Your task to perform on an android device: turn off location history Image 0: 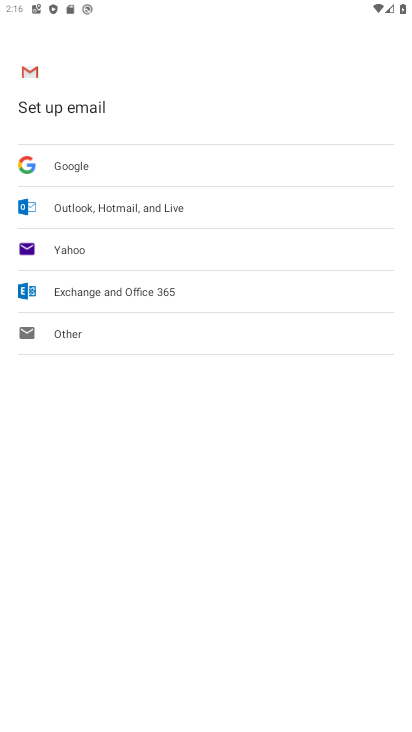
Step 0: press home button
Your task to perform on an android device: turn off location history Image 1: 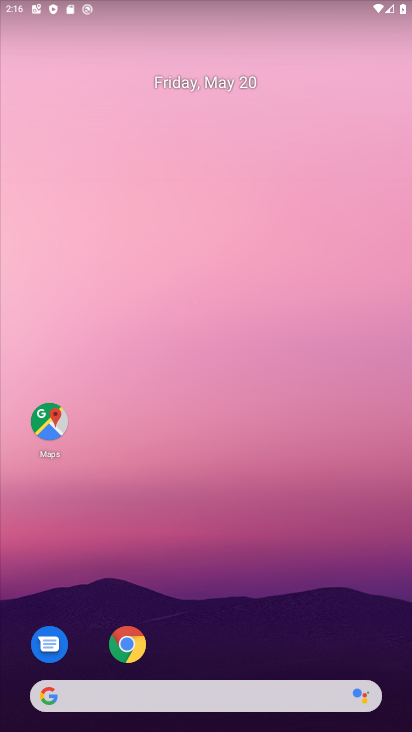
Step 1: drag from (366, 526) to (240, 13)
Your task to perform on an android device: turn off location history Image 2: 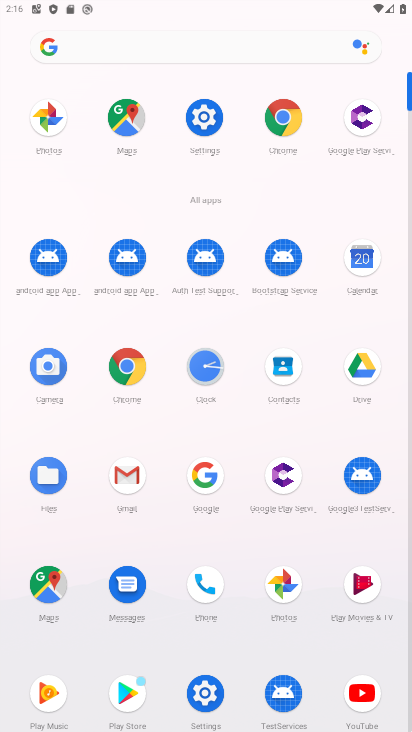
Step 2: click (215, 690)
Your task to perform on an android device: turn off location history Image 3: 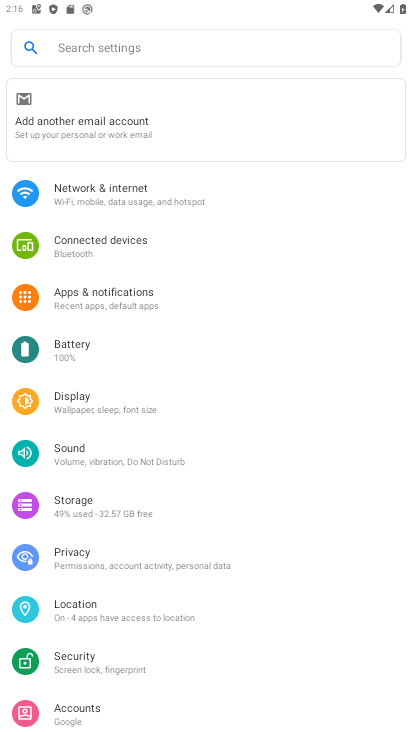
Step 3: click (152, 604)
Your task to perform on an android device: turn off location history Image 4: 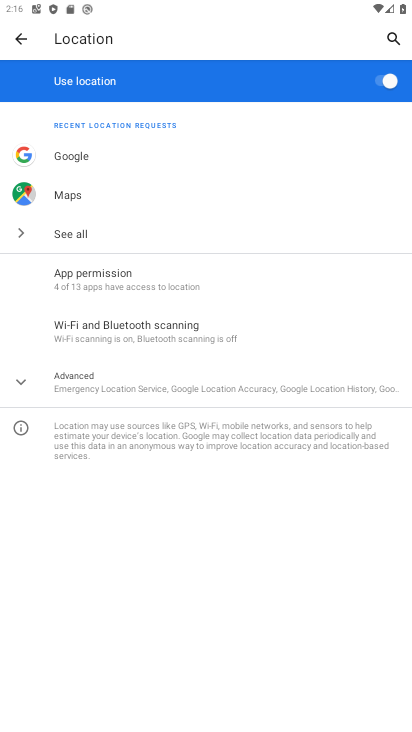
Step 4: click (187, 376)
Your task to perform on an android device: turn off location history Image 5: 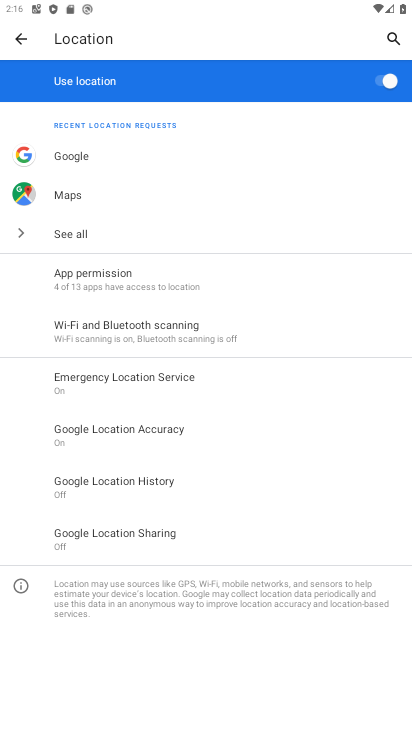
Step 5: click (178, 478)
Your task to perform on an android device: turn off location history Image 6: 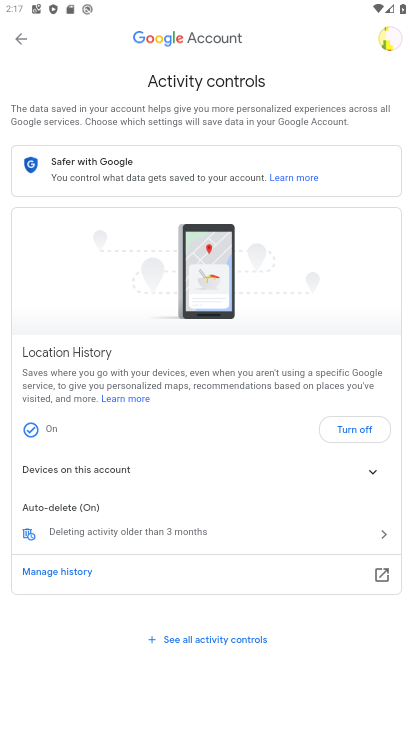
Step 6: click (355, 428)
Your task to perform on an android device: turn off location history Image 7: 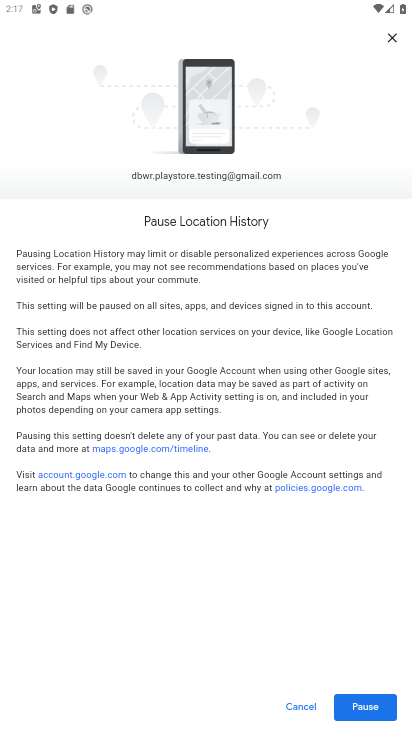
Step 7: click (374, 716)
Your task to perform on an android device: turn off location history Image 8: 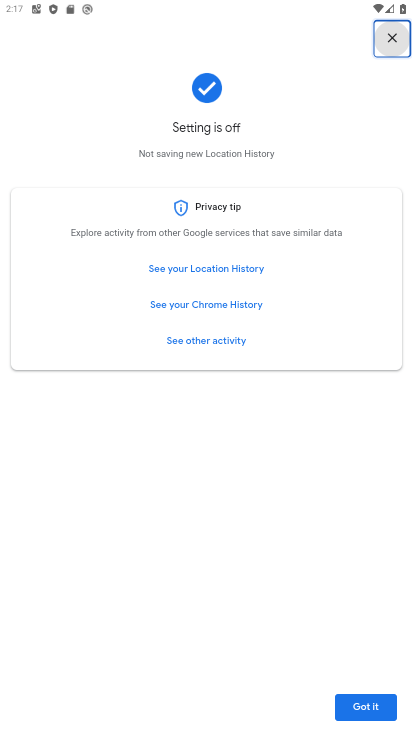
Step 8: task complete